Your task to perform on an android device: Open Google Maps and go to "Timeline" Image 0: 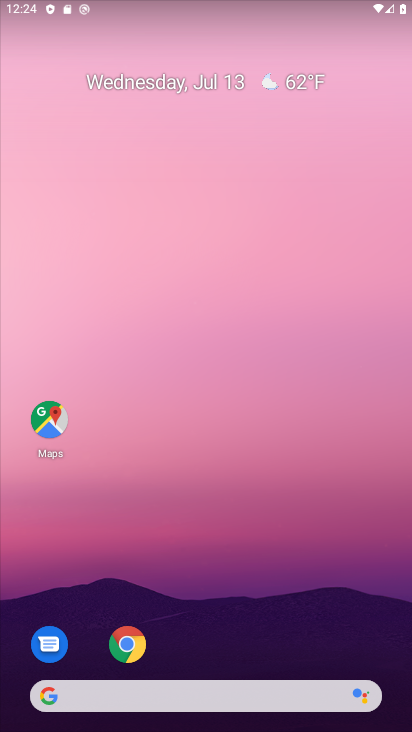
Step 0: drag from (220, 660) to (162, 104)
Your task to perform on an android device: Open Google Maps and go to "Timeline" Image 1: 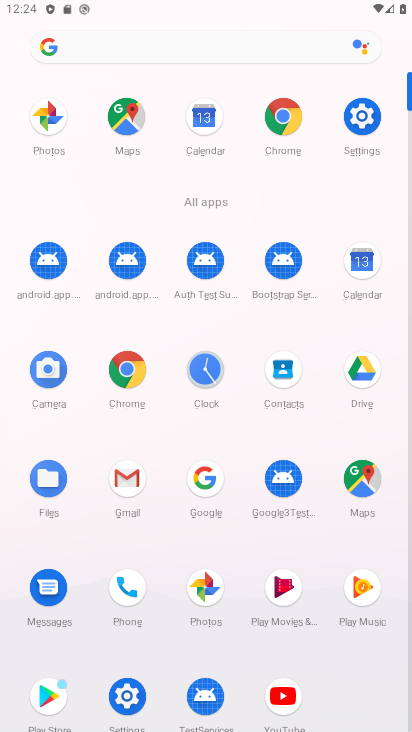
Step 1: click (359, 483)
Your task to perform on an android device: Open Google Maps and go to "Timeline" Image 2: 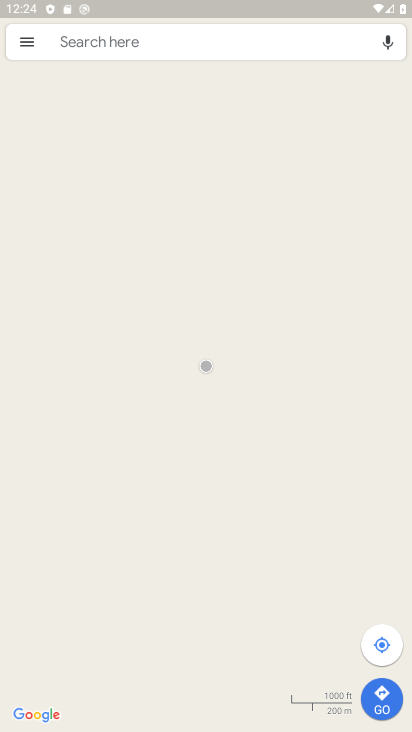
Step 2: click (33, 34)
Your task to perform on an android device: Open Google Maps and go to "Timeline" Image 3: 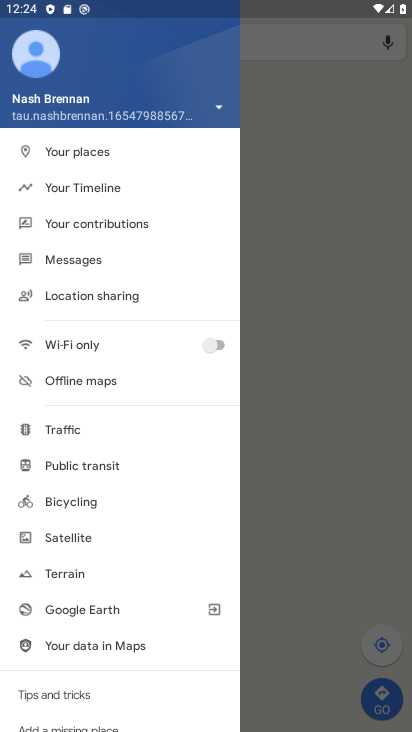
Step 3: click (84, 186)
Your task to perform on an android device: Open Google Maps and go to "Timeline" Image 4: 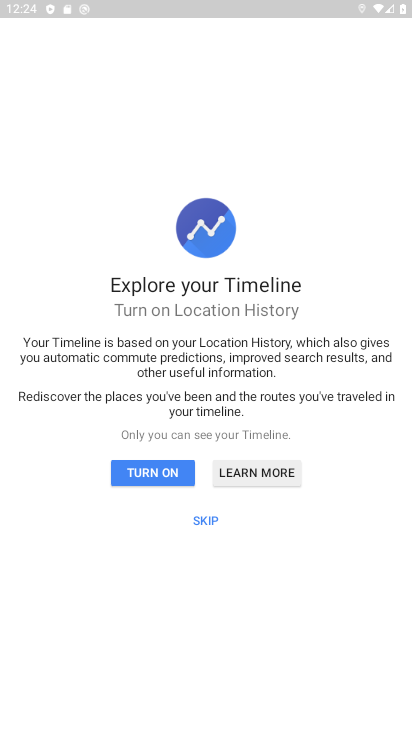
Step 4: click (177, 474)
Your task to perform on an android device: Open Google Maps and go to "Timeline" Image 5: 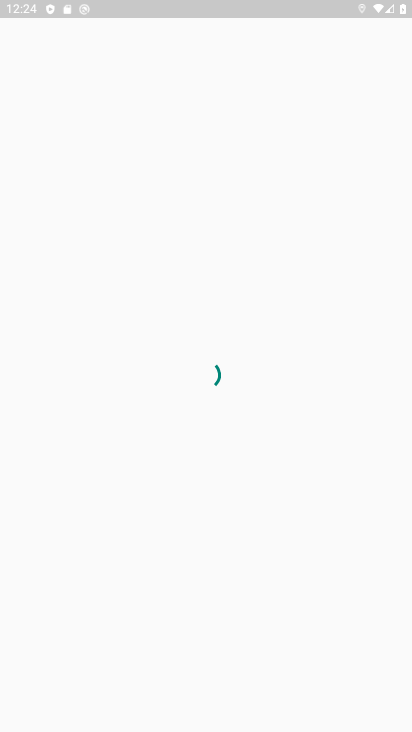
Step 5: task complete